Your task to perform on an android device: Open Youtube and go to the subscriptions tab Image 0: 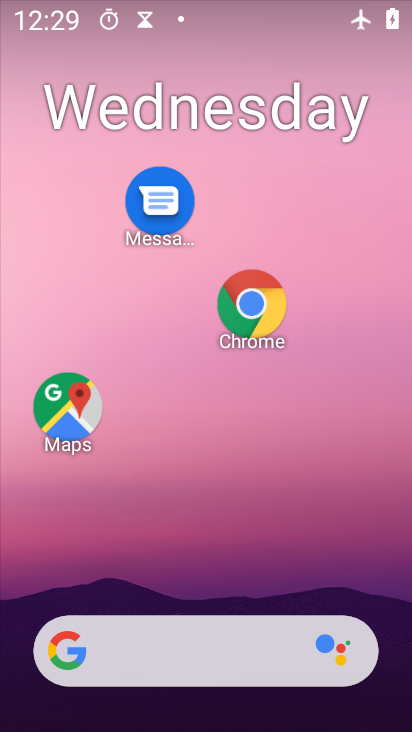
Step 0: drag from (319, 493) to (365, 170)
Your task to perform on an android device: Open Youtube and go to the subscriptions tab Image 1: 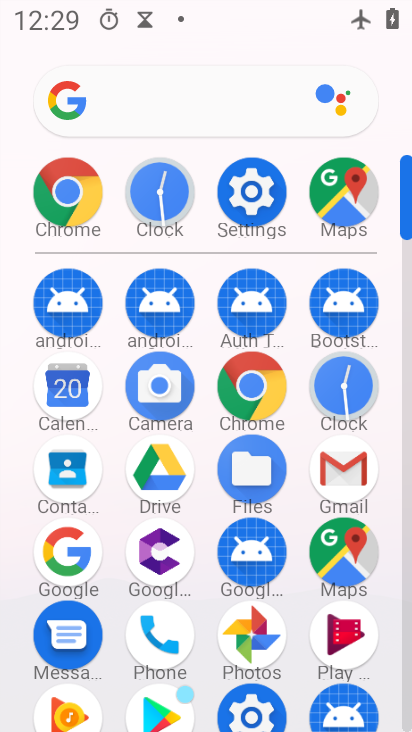
Step 1: drag from (269, 646) to (298, 207)
Your task to perform on an android device: Open Youtube and go to the subscriptions tab Image 2: 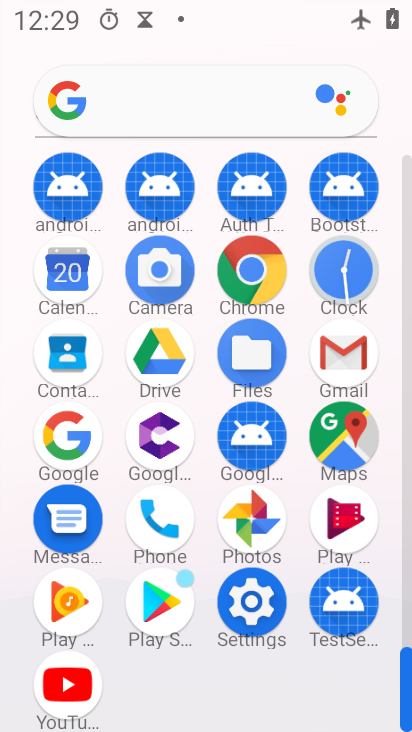
Step 2: click (79, 678)
Your task to perform on an android device: Open Youtube and go to the subscriptions tab Image 3: 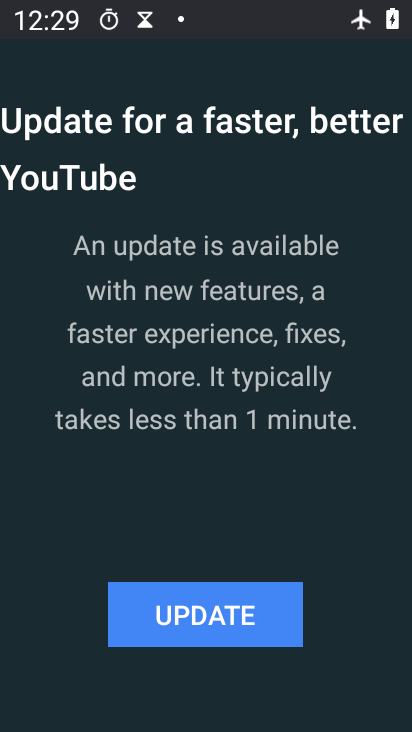
Step 3: task complete